Your task to perform on an android device: Open Youtube and go to the subscriptions tab Image 0: 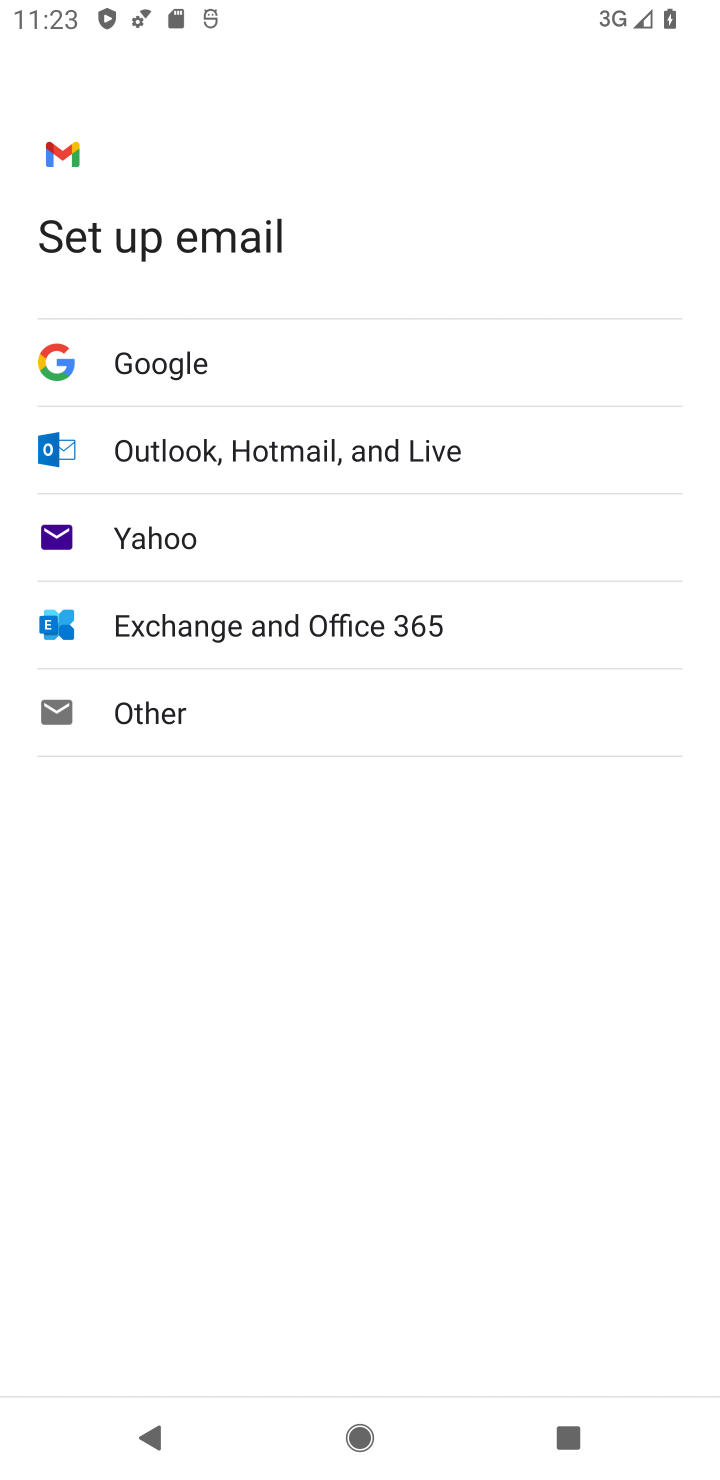
Step 0: press home button
Your task to perform on an android device: Open Youtube and go to the subscriptions tab Image 1: 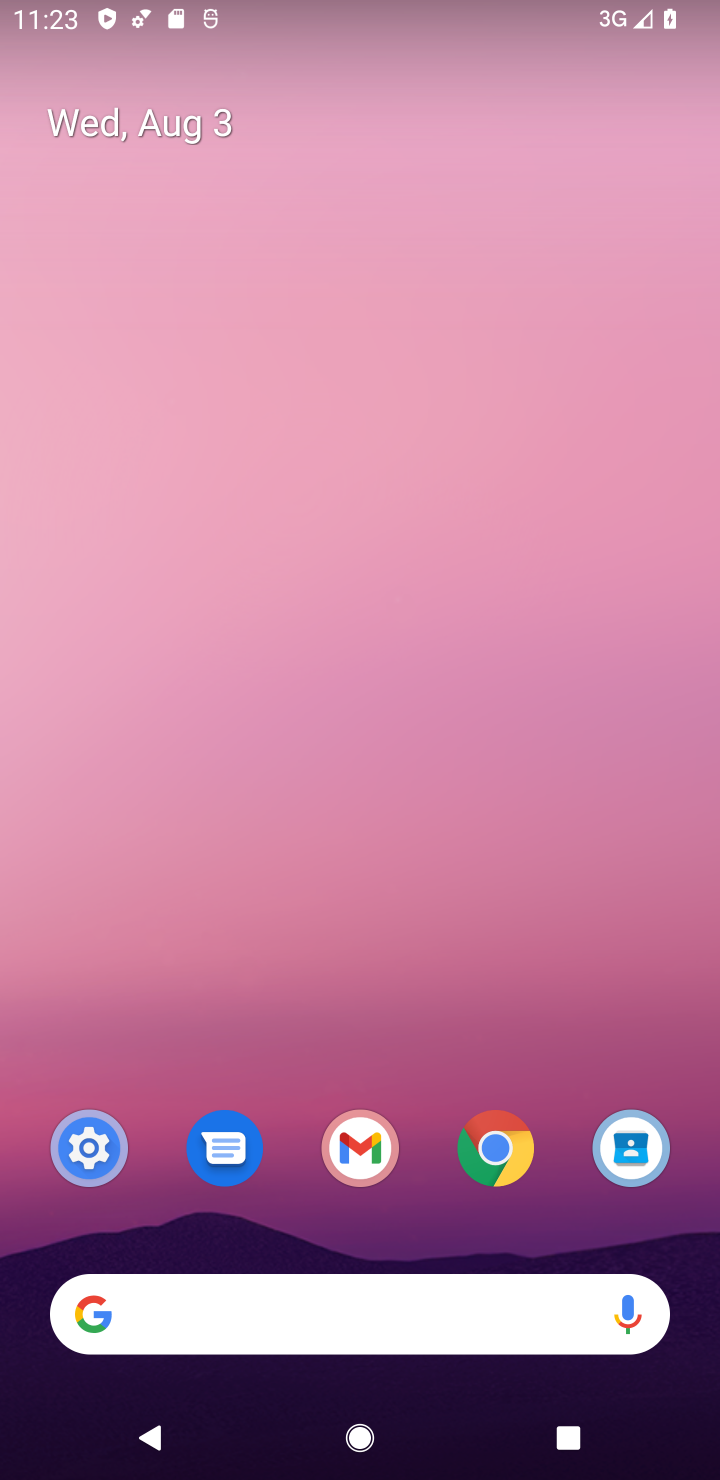
Step 1: task complete